Your task to perform on an android device: choose inbox layout in the gmail app Image 0: 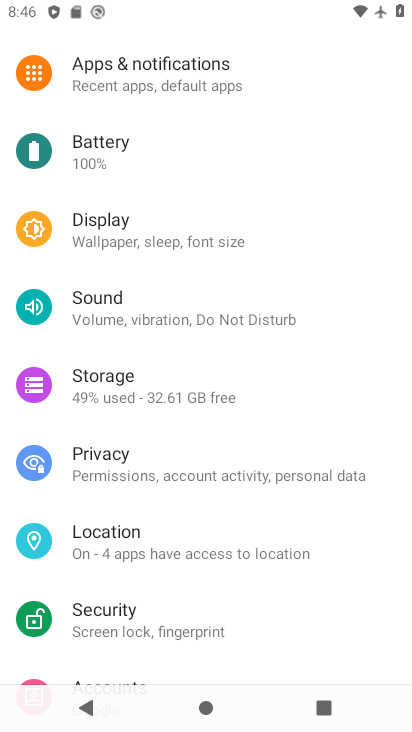
Step 0: press home button
Your task to perform on an android device: choose inbox layout in the gmail app Image 1: 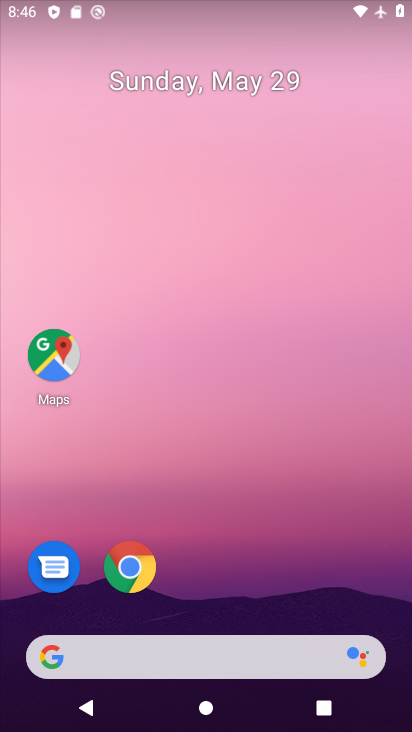
Step 1: drag from (389, 604) to (294, 53)
Your task to perform on an android device: choose inbox layout in the gmail app Image 2: 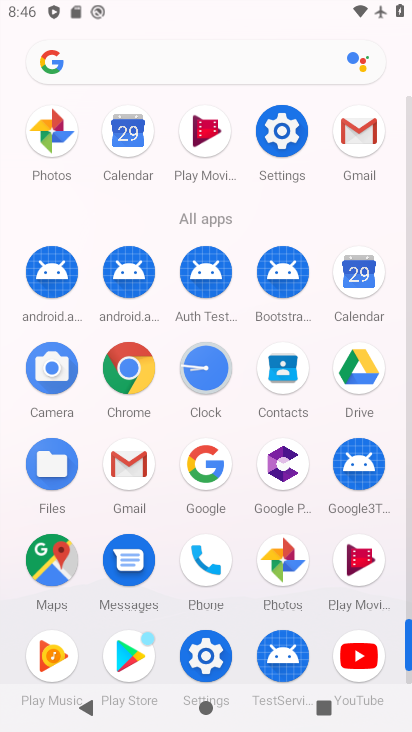
Step 2: click (125, 463)
Your task to perform on an android device: choose inbox layout in the gmail app Image 3: 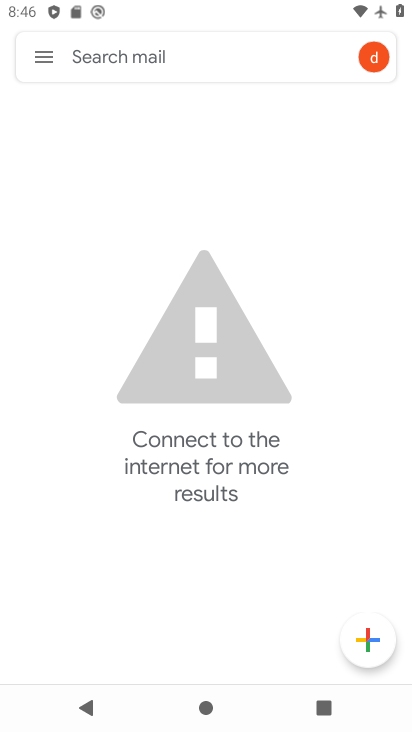
Step 3: click (43, 55)
Your task to perform on an android device: choose inbox layout in the gmail app Image 4: 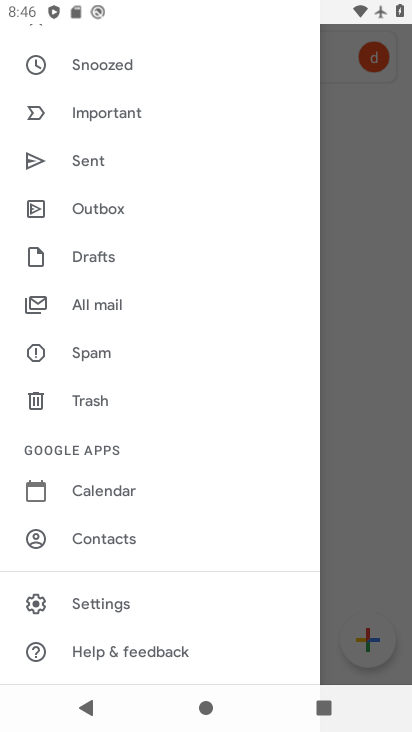
Step 4: click (104, 588)
Your task to perform on an android device: choose inbox layout in the gmail app Image 5: 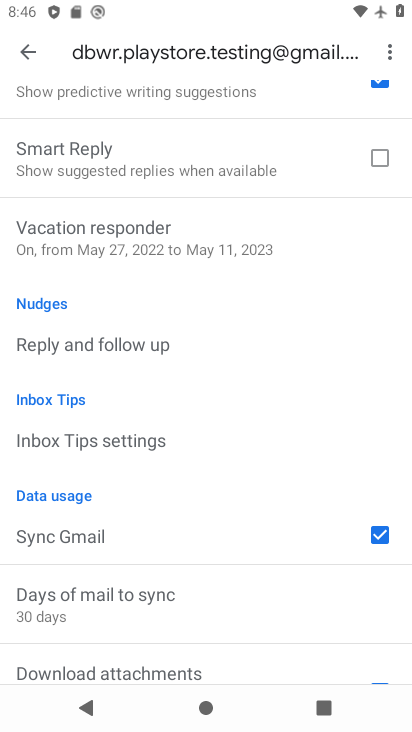
Step 5: drag from (184, 313) to (184, 563)
Your task to perform on an android device: choose inbox layout in the gmail app Image 6: 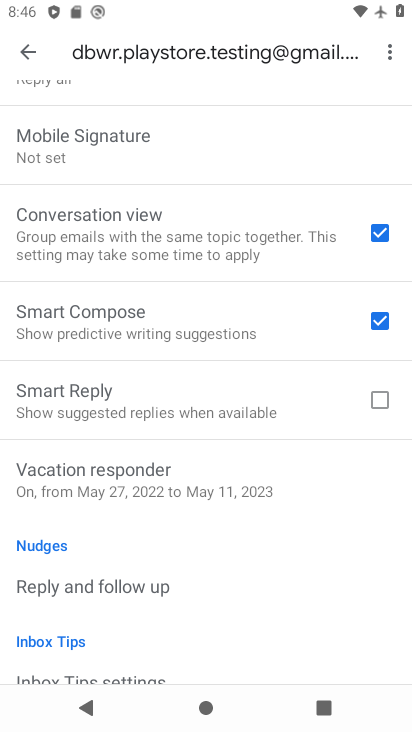
Step 6: drag from (214, 215) to (202, 453)
Your task to perform on an android device: choose inbox layout in the gmail app Image 7: 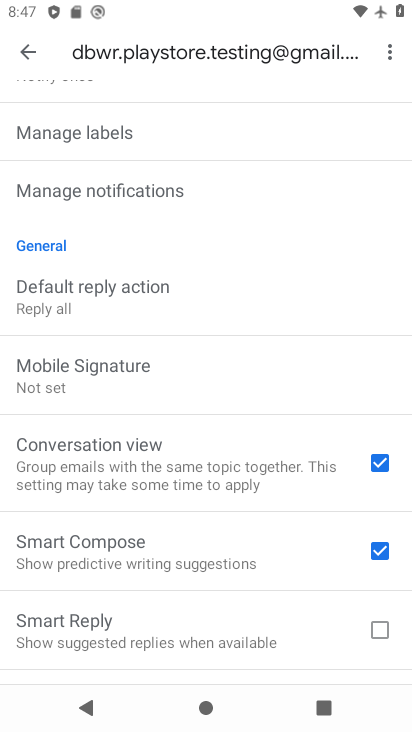
Step 7: drag from (244, 195) to (214, 478)
Your task to perform on an android device: choose inbox layout in the gmail app Image 8: 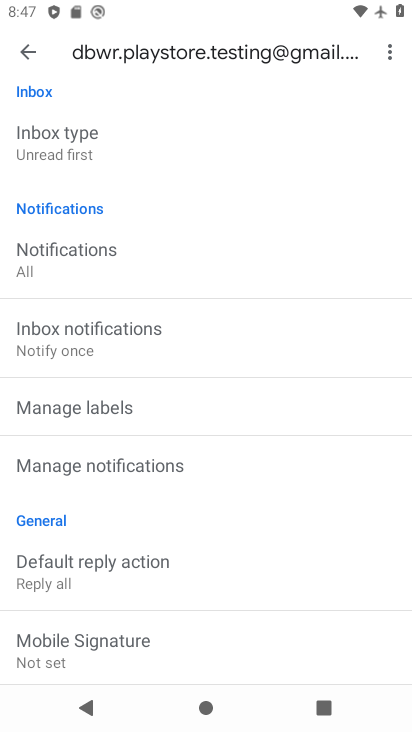
Step 8: drag from (232, 218) to (236, 455)
Your task to perform on an android device: choose inbox layout in the gmail app Image 9: 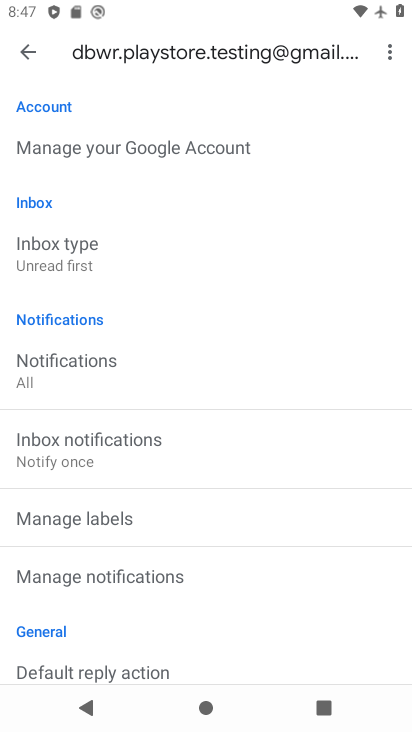
Step 9: click (44, 244)
Your task to perform on an android device: choose inbox layout in the gmail app Image 10: 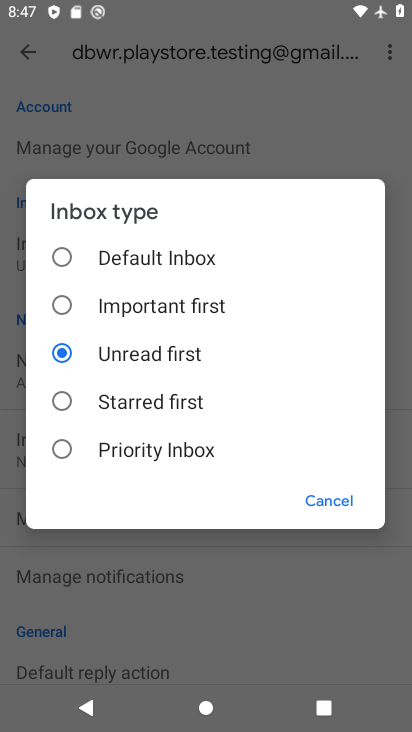
Step 10: click (58, 260)
Your task to perform on an android device: choose inbox layout in the gmail app Image 11: 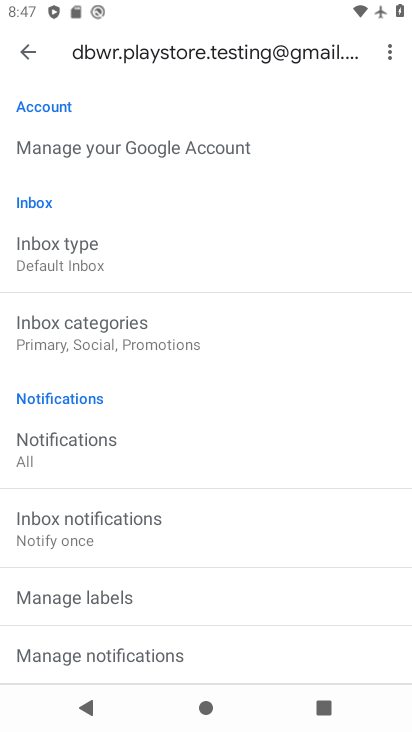
Step 11: task complete